Your task to perform on an android device: When is my next meeting? Image 0: 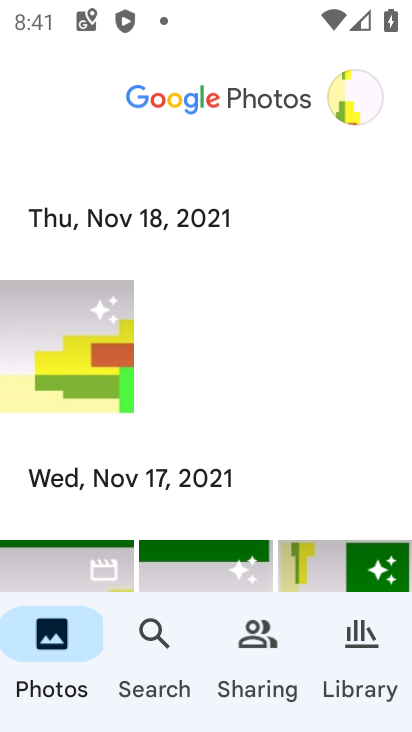
Step 0: press home button
Your task to perform on an android device: When is my next meeting? Image 1: 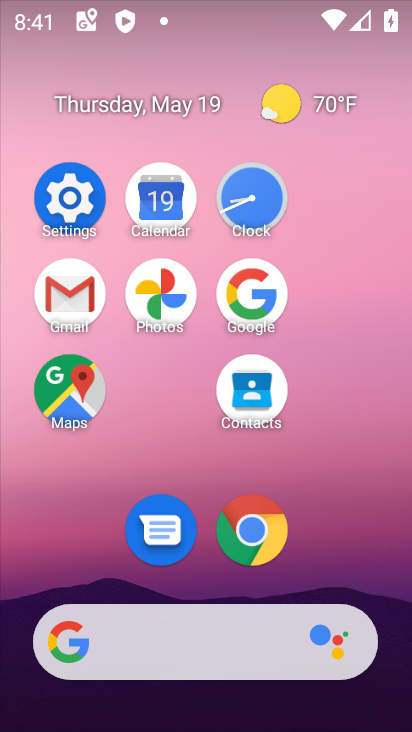
Step 1: click (156, 186)
Your task to perform on an android device: When is my next meeting? Image 2: 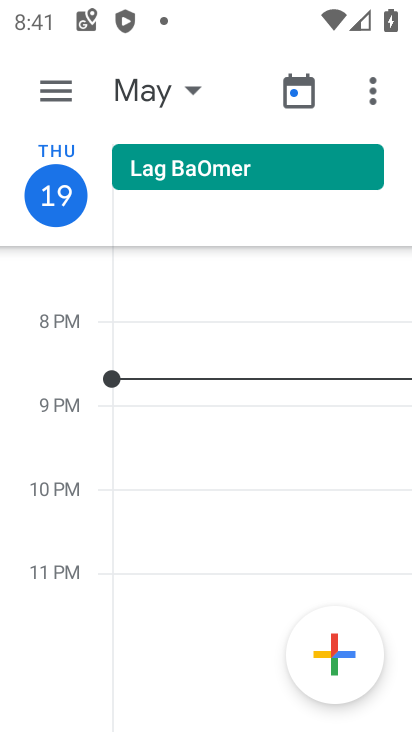
Step 2: drag from (322, 179) to (56, 203)
Your task to perform on an android device: When is my next meeting? Image 3: 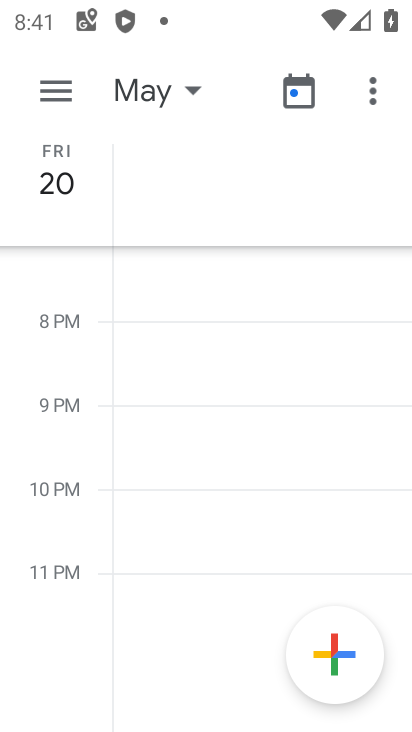
Step 3: drag from (353, 198) to (16, 224)
Your task to perform on an android device: When is my next meeting? Image 4: 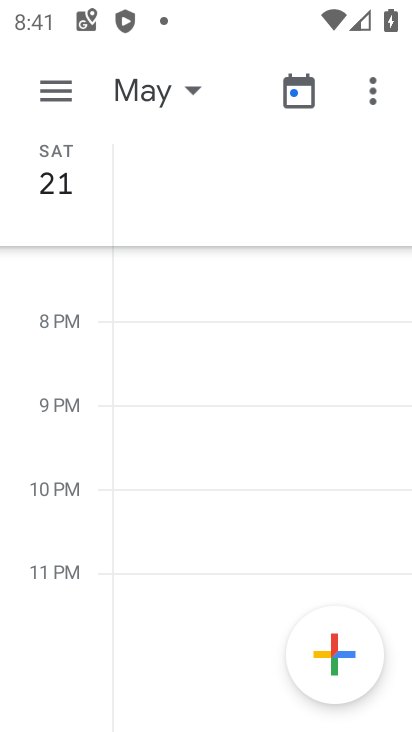
Step 4: click (105, 190)
Your task to perform on an android device: When is my next meeting? Image 5: 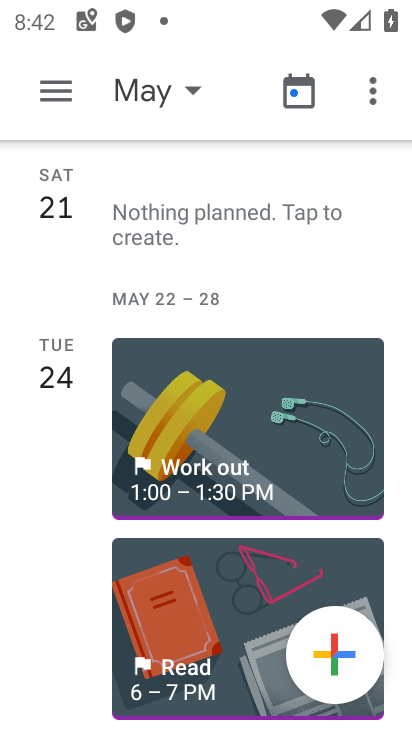
Step 5: task complete